Your task to perform on an android device: Go to privacy settings Image 0: 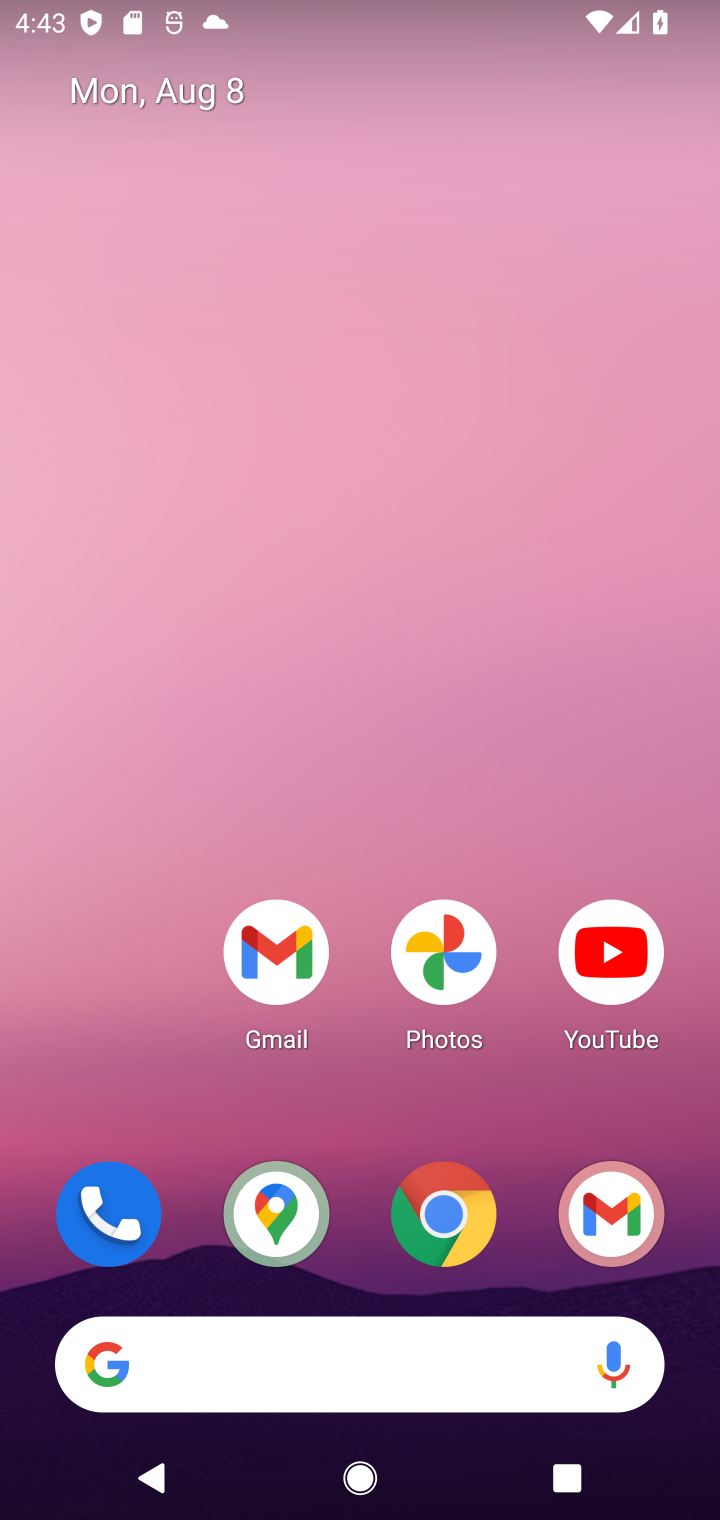
Step 0: drag from (374, 1077) to (374, 112)
Your task to perform on an android device: Go to privacy settings Image 1: 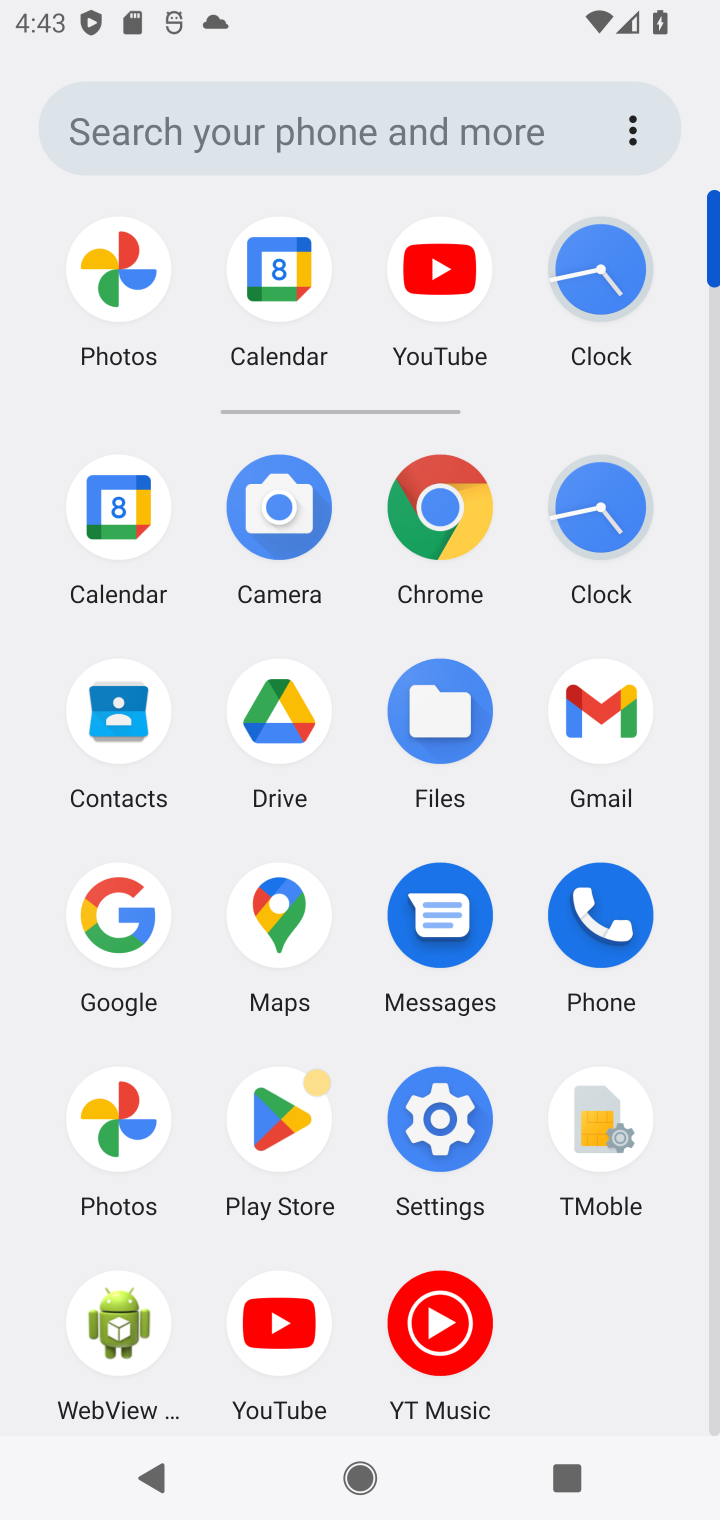
Step 1: click (444, 1118)
Your task to perform on an android device: Go to privacy settings Image 2: 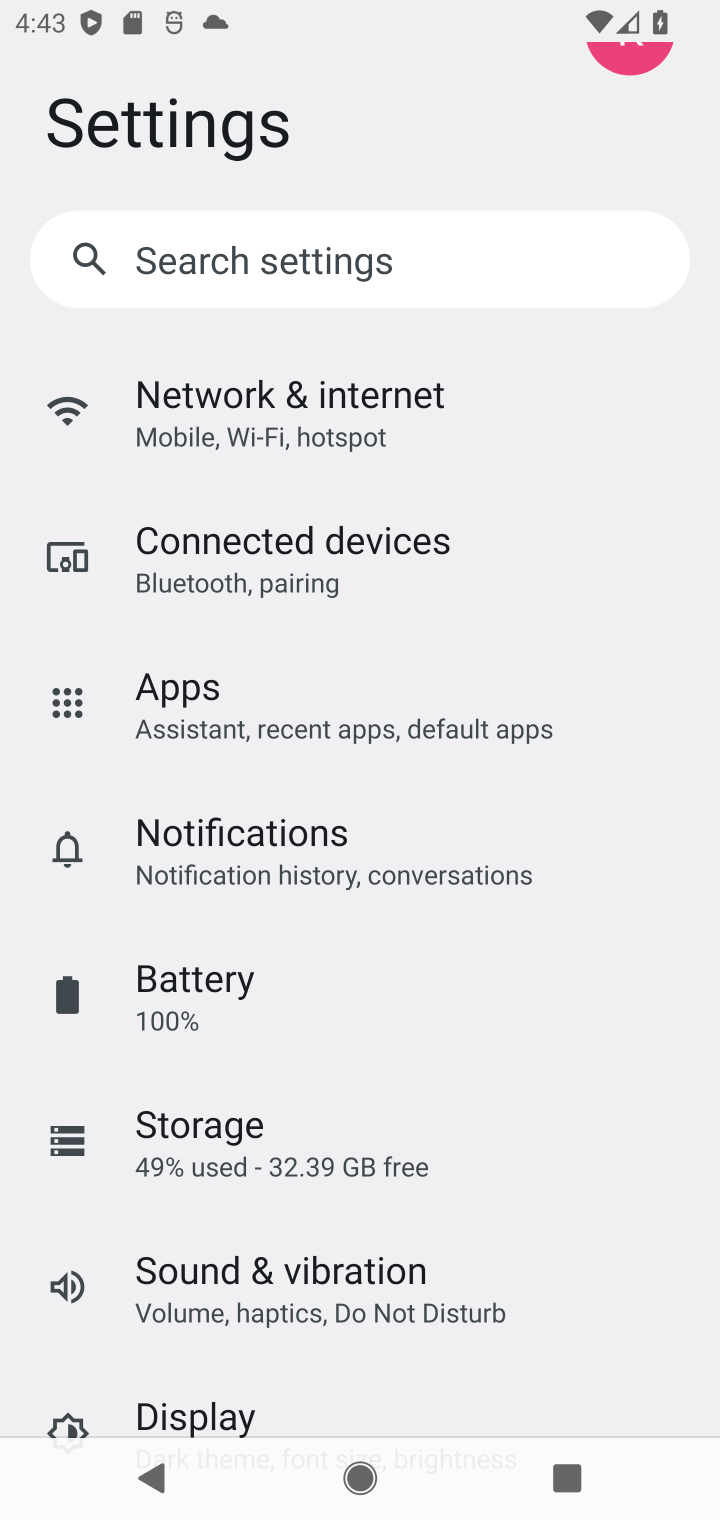
Step 2: drag from (228, 1302) to (228, 494)
Your task to perform on an android device: Go to privacy settings Image 3: 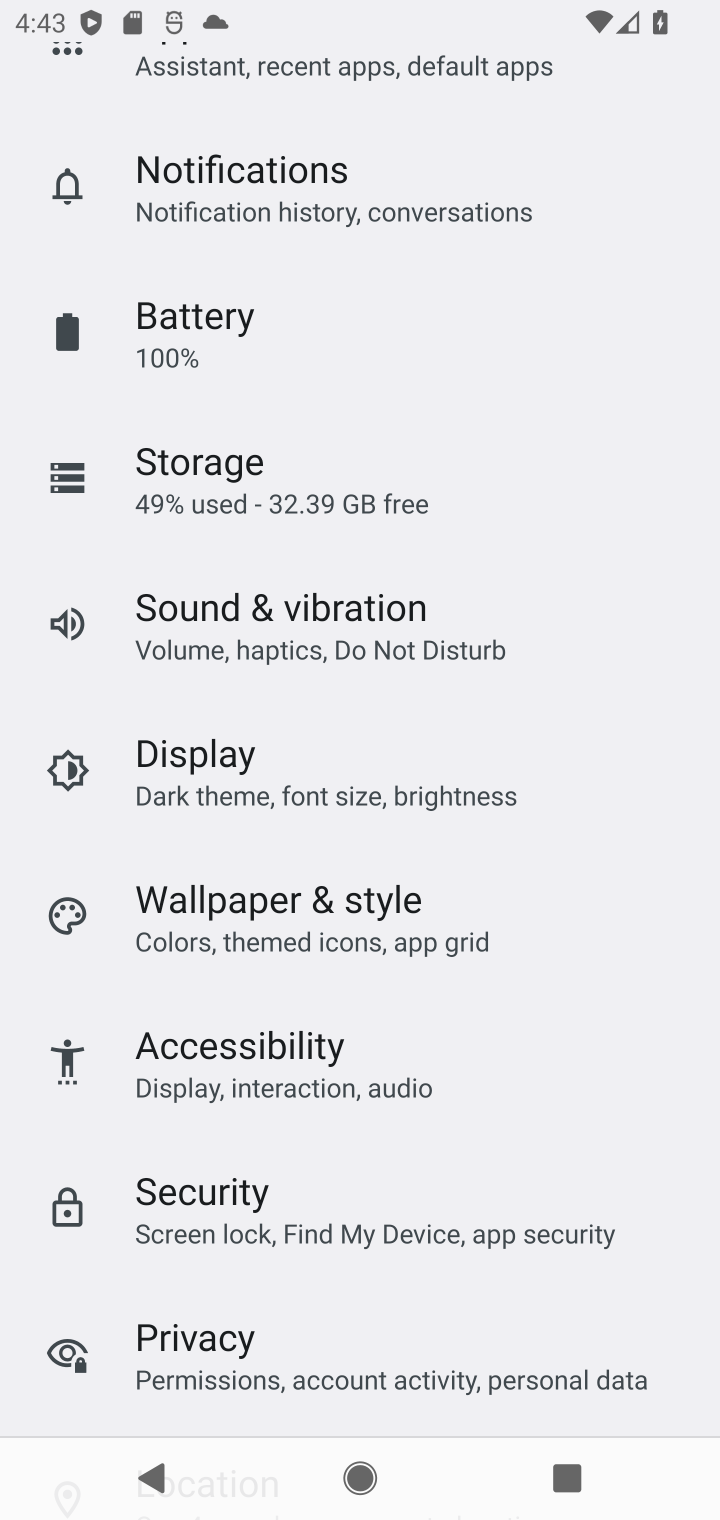
Step 3: click (201, 1336)
Your task to perform on an android device: Go to privacy settings Image 4: 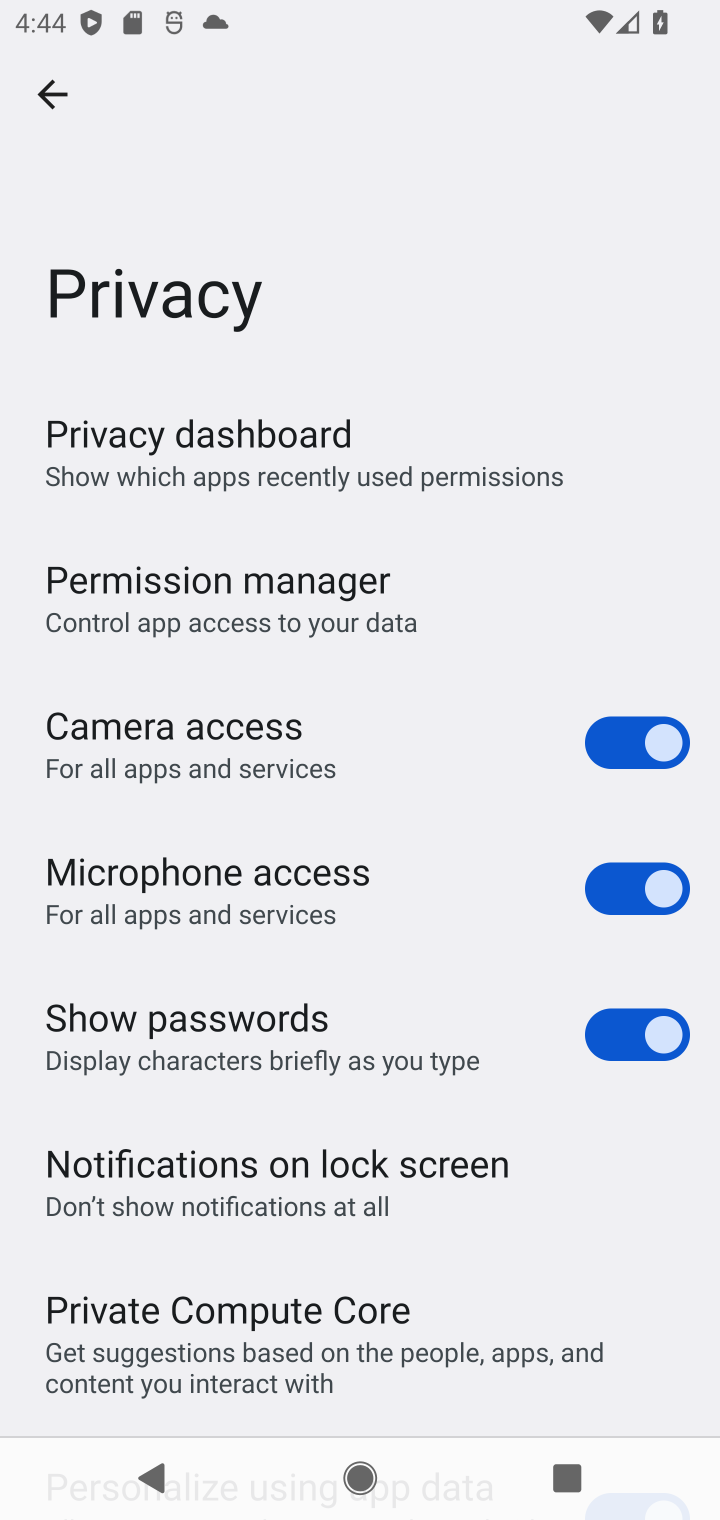
Step 4: task complete